Your task to perform on an android device: turn on notifications settings in the gmail app Image 0: 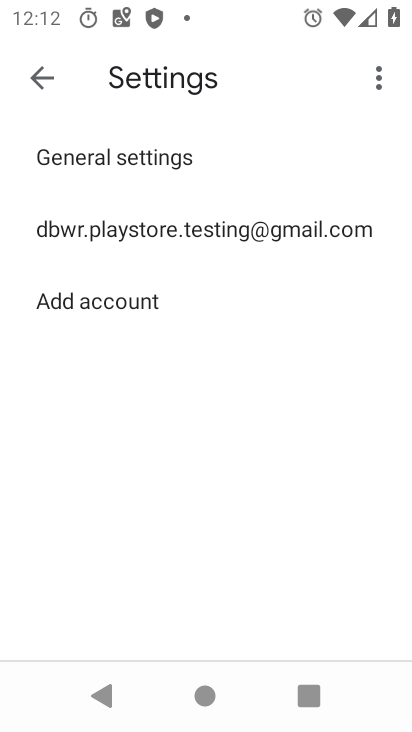
Step 0: press home button
Your task to perform on an android device: turn on notifications settings in the gmail app Image 1: 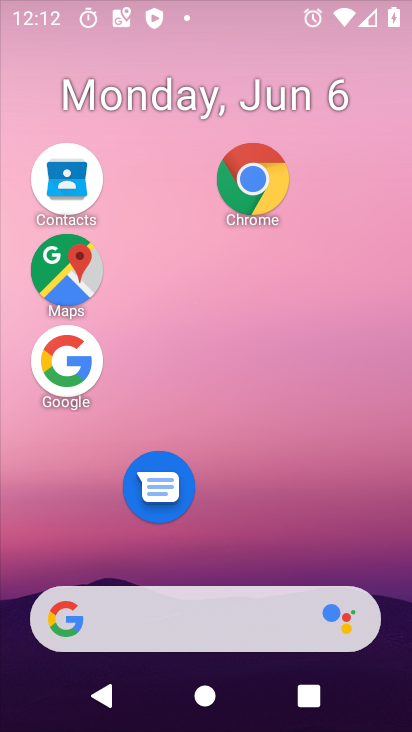
Step 1: drag from (209, 658) to (225, 66)
Your task to perform on an android device: turn on notifications settings in the gmail app Image 2: 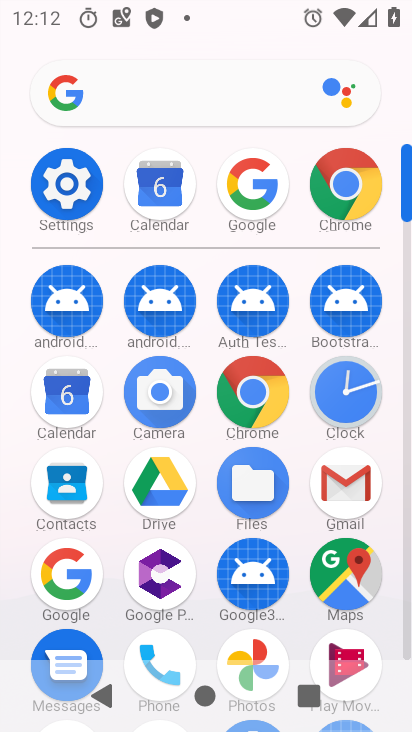
Step 2: click (364, 506)
Your task to perform on an android device: turn on notifications settings in the gmail app Image 3: 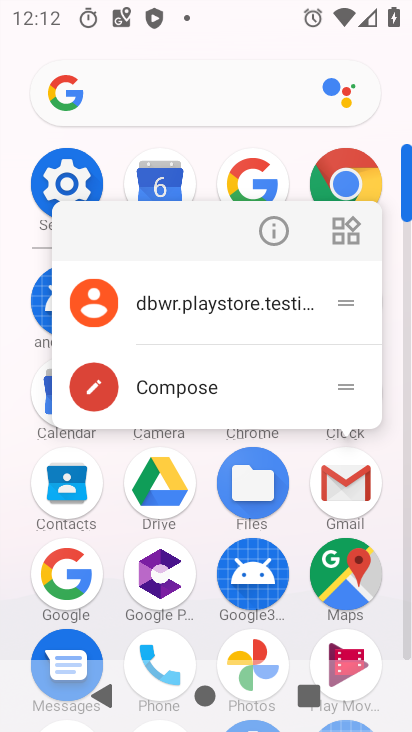
Step 3: click (359, 499)
Your task to perform on an android device: turn on notifications settings in the gmail app Image 4: 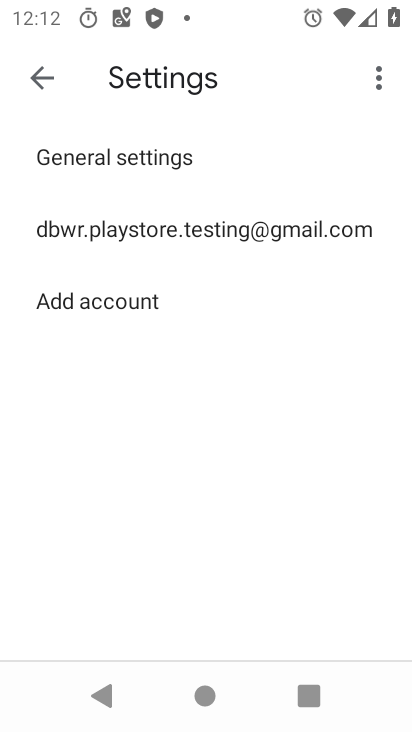
Step 4: click (161, 161)
Your task to perform on an android device: turn on notifications settings in the gmail app Image 5: 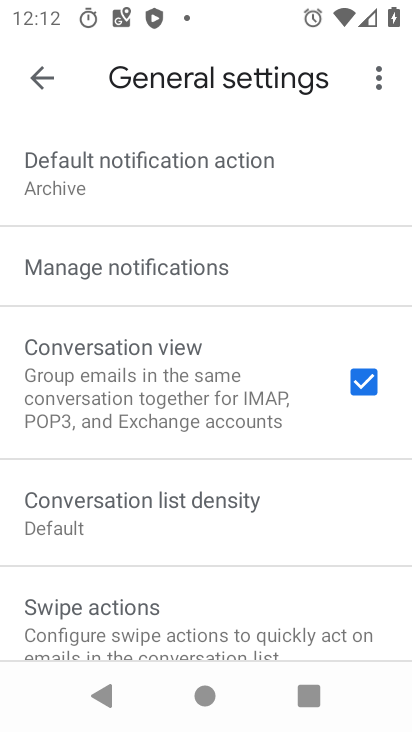
Step 5: click (266, 271)
Your task to perform on an android device: turn on notifications settings in the gmail app Image 6: 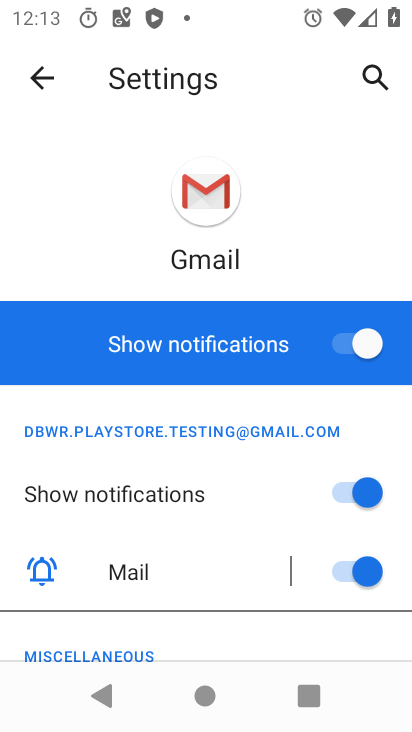
Step 6: task complete